Your task to perform on an android device: open a new tab in the chrome app Image 0: 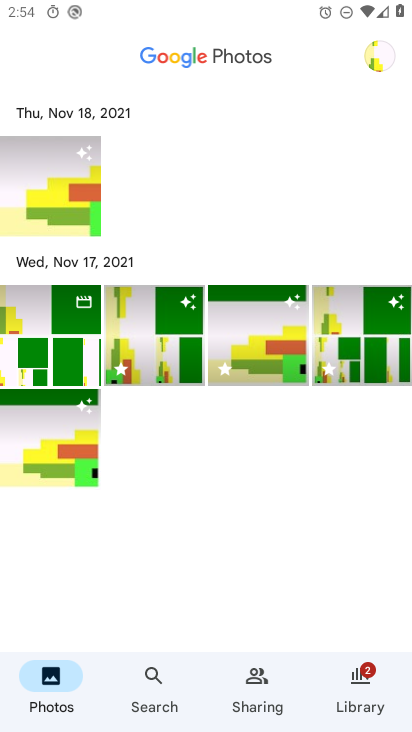
Step 0: press home button
Your task to perform on an android device: open a new tab in the chrome app Image 1: 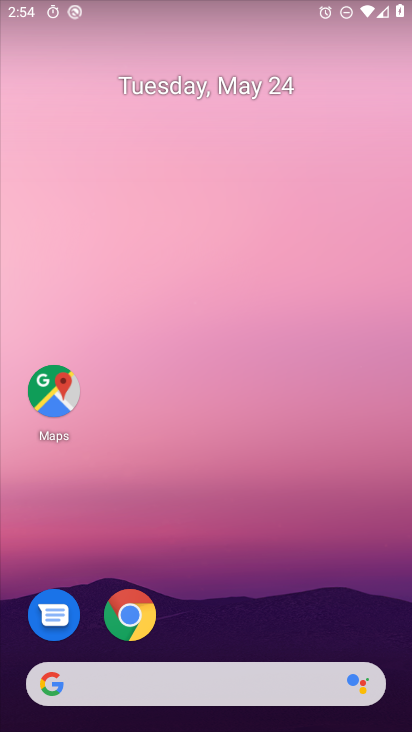
Step 1: click (136, 621)
Your task to perform on an android device: open a new tab in the chrome app Image 2: 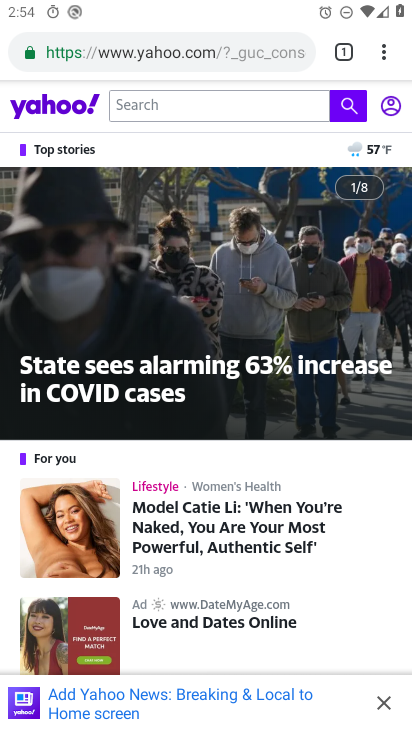
Step 2: click (386, 39)
Your task to perform on an android device: open a new tab in the chrome app Image 3: 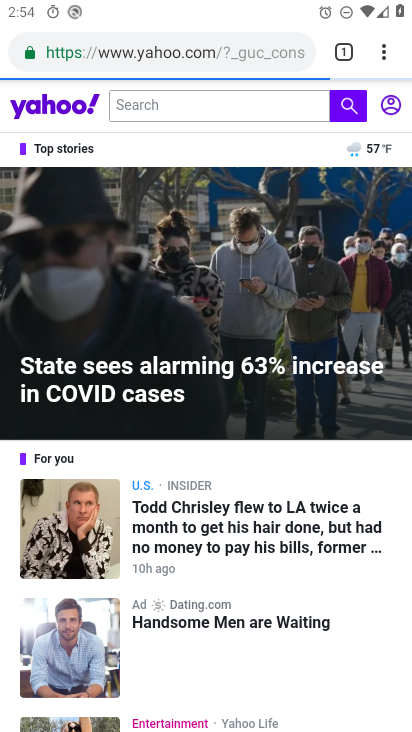
Step 3: click (379, 57)
Your task to perform on an android device: open a new tab in the chrome app Image 4: 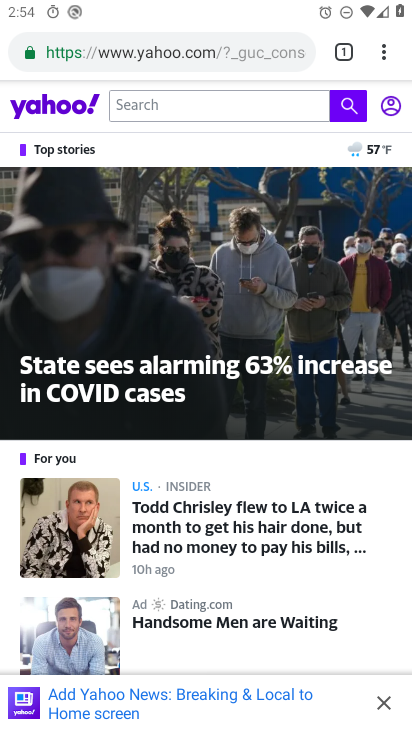
Step 4: click (377, 58)
Your task to perform on an android device: open a new tab in the chrome app Image 5: 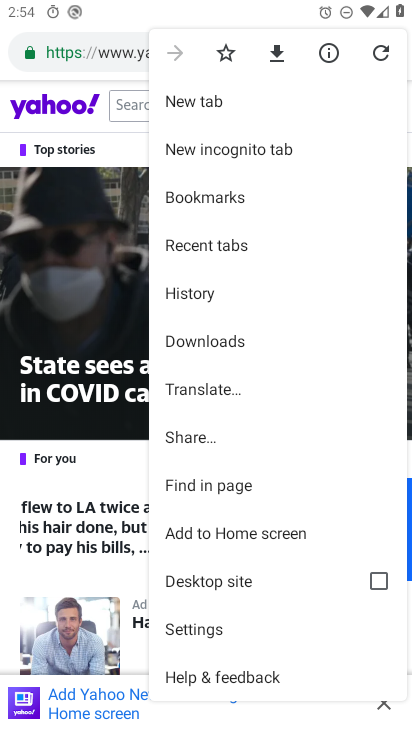
Step 5: click (221, 98)
Your task to perform on an android device: open a new tab in the chrome app Image 6: 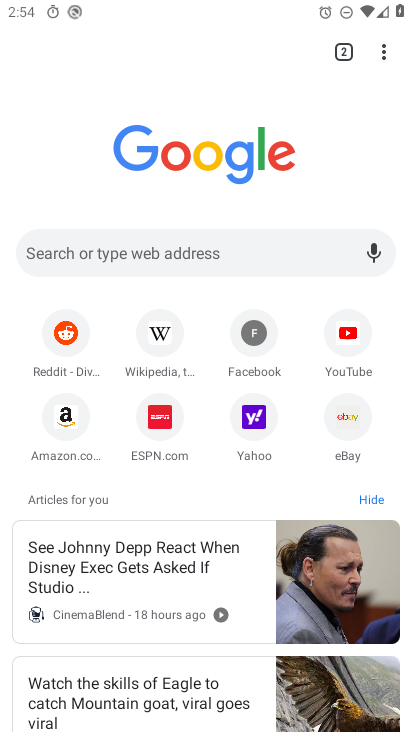
Step 6: task complete